Your task to perform on an android device: Open the web browser Image 0: 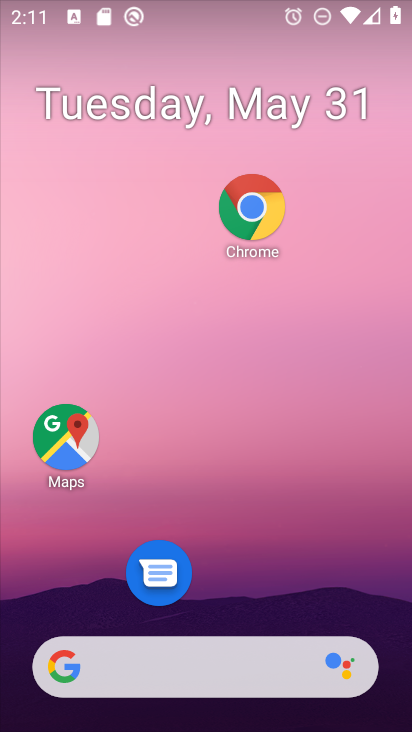
Step 0: drag from (243, 685) to (243, 228)
Your task to perform on an android device: Open the web browser Image 1: 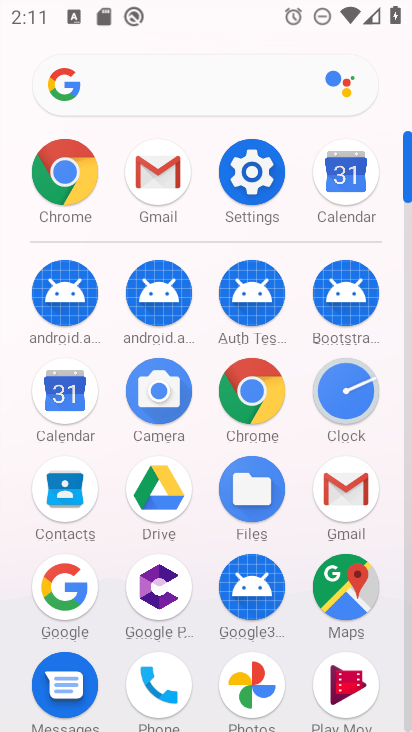
Step 1: click (74, 201)
Your task to perform on an android device: Open the web browser Image 2: 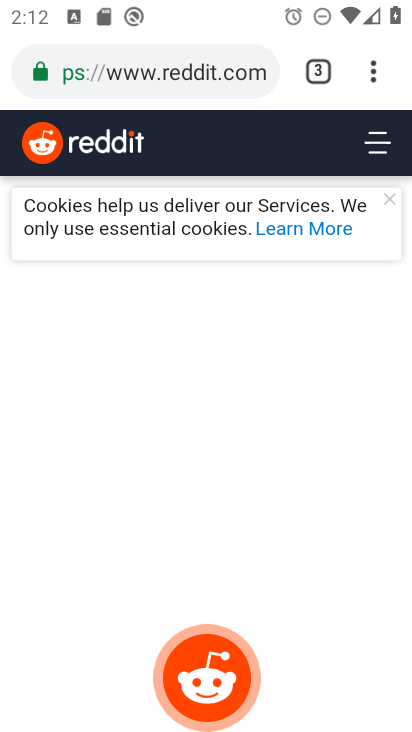
Step 2: task complete